Your task to perform on an android device: change alarm snooze length Image 0: 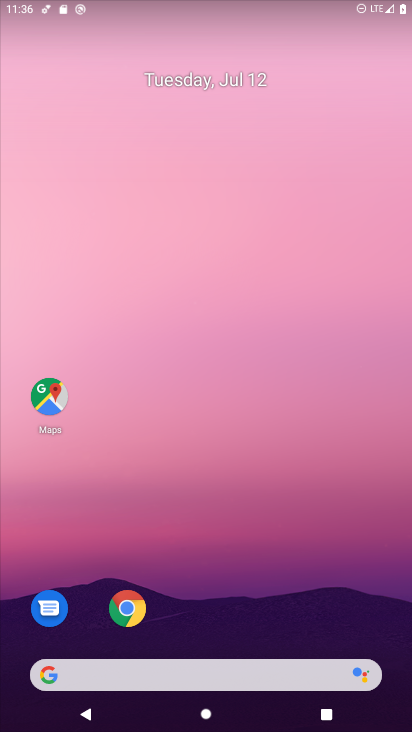
Step 0: drag from (192, 627) to (255, 15)
Your task to perform on an android device: change alarm snooze length Image 1: 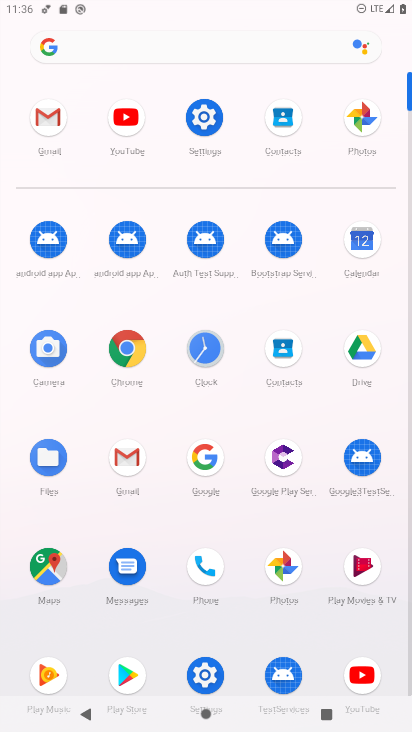
Step 1: click (193, 349)
Your task to perform on an android device: change alarm snooze length Image 2: 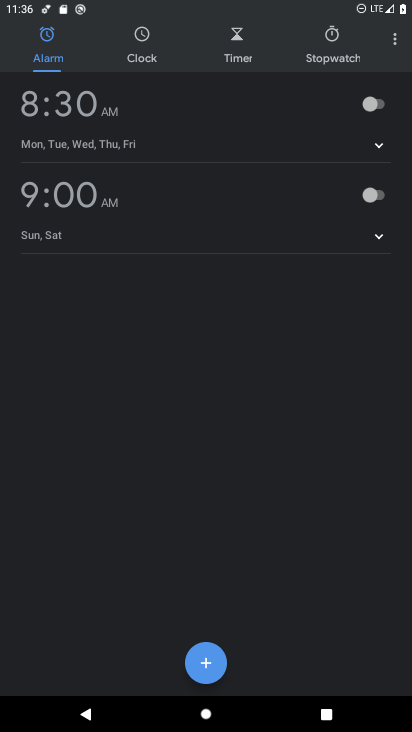
Step 2: click (395, 38)
Your task to perform on an android device: change alarm snooze length Image 3: 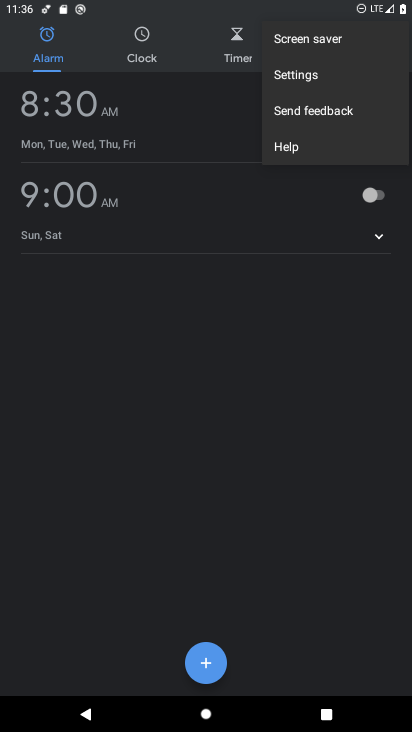
Step 3: click (351, 76)
Your task to perform on an android device: change alarm snooze length Image 4: 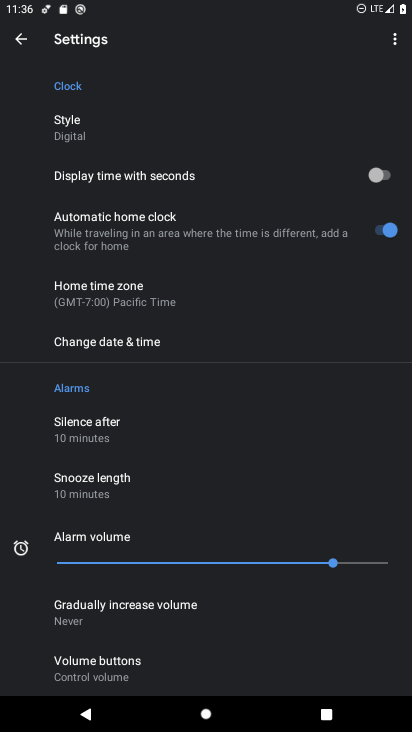
Step 4: click (113, 475)
Your task to perform on an android device: change alarm snooze length Image 5: 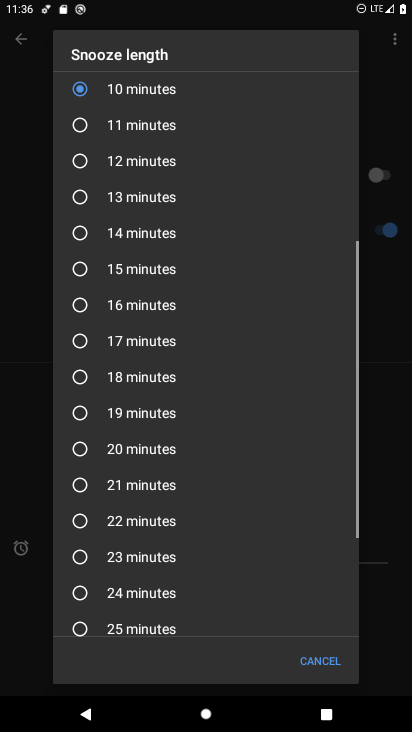
Step 5: click (113, 475)
Your task to perform on an android device: change alarm snooze length Image 6: 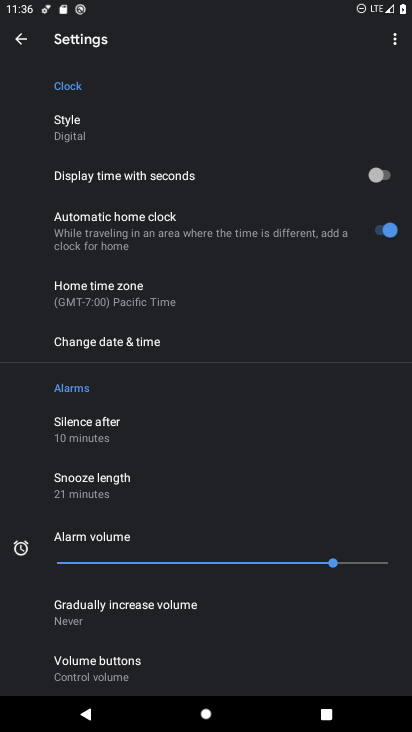
Step 6: task complete